Your task to perform on an android device: Open calendar and show me the second week of next month Image 0: 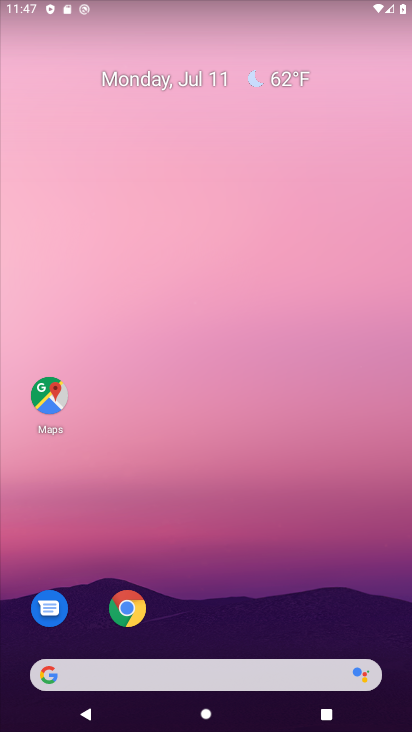
Step 0: drag from (317, 485) to (333, 3)
Your task to perform on an android device: Open calendar and show me the second week of next month Image 1: 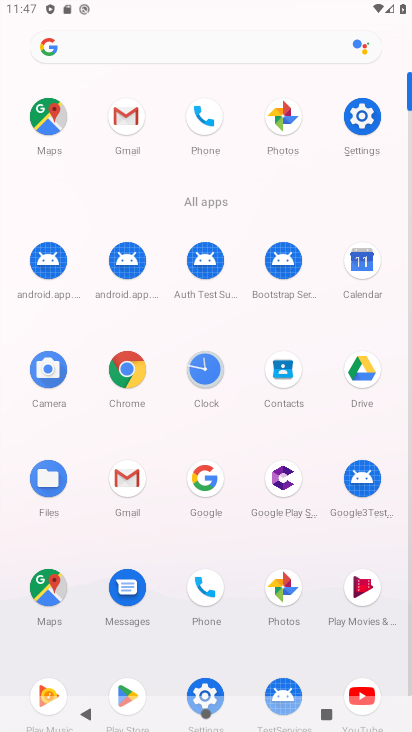
Step 1: click (372, 274)
Your task to perform on an android device: Open calendar and show me the second week of next month Image 2: 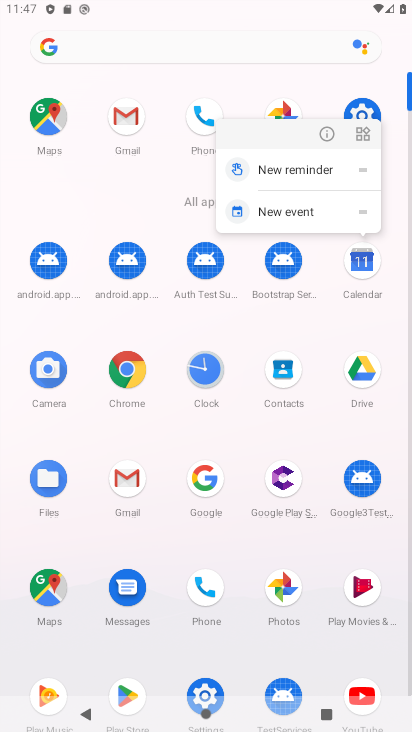
Step 2: click (372, 274)
Your task to perform on an android device: Open calendar and show me the second week of next month Image 3: 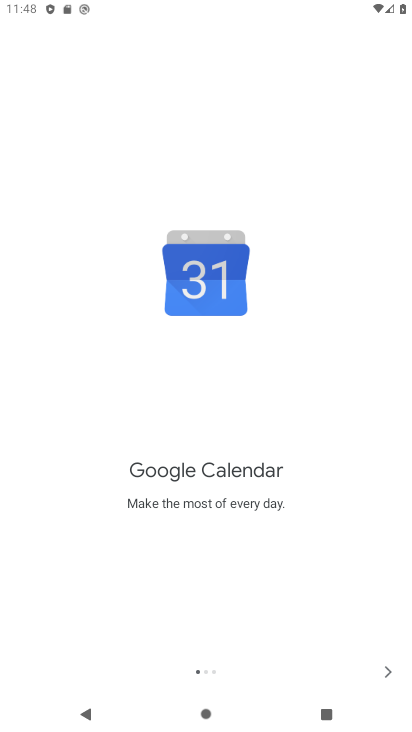
Step 3: click (387, 668)
Your task to perform on an android device: Open calendar and show me the second week of next month Image 4: 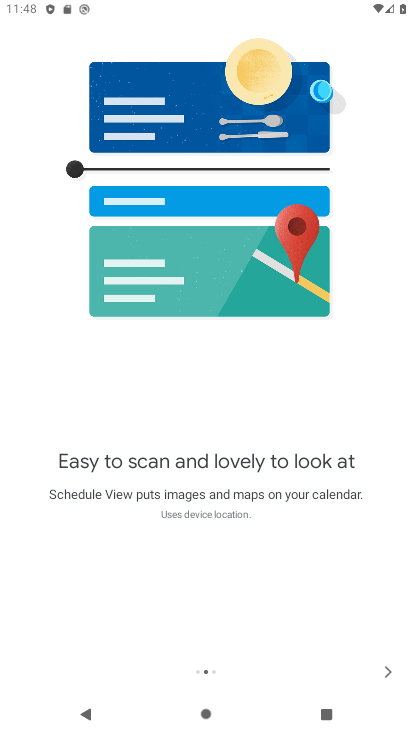
Step 4: click (389, 662)
Your task to perform on an android device: Open calendar and show me the second week of next month Image 5: 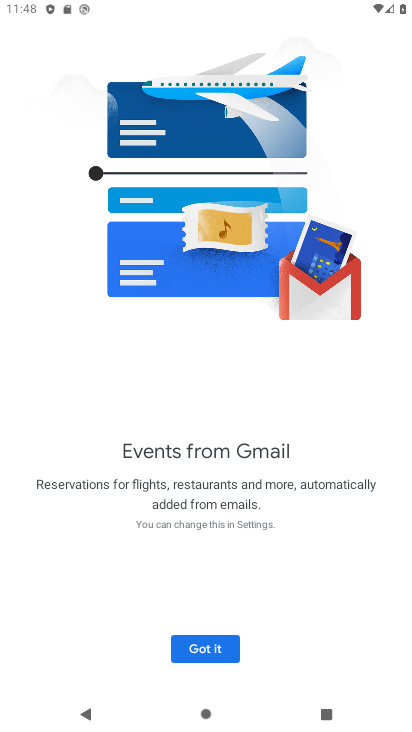
Step 5: click (198, 651)
Your task to perform on an android device: Open calendar and show me the second week of next month Image 6: 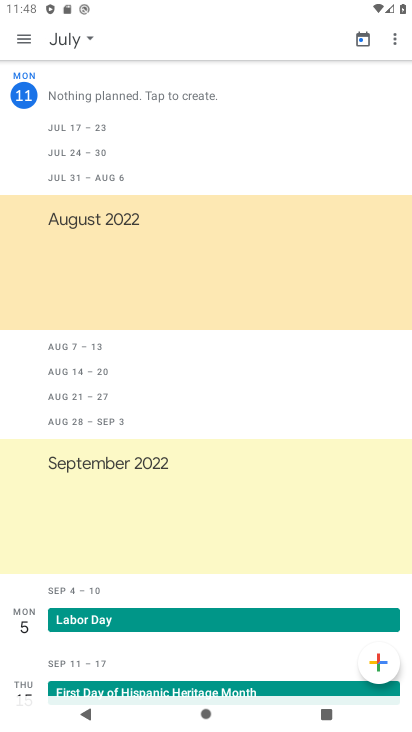
Step 6: task complete